Your task to perform on an android device: Go to Yahoo.com Image 0: 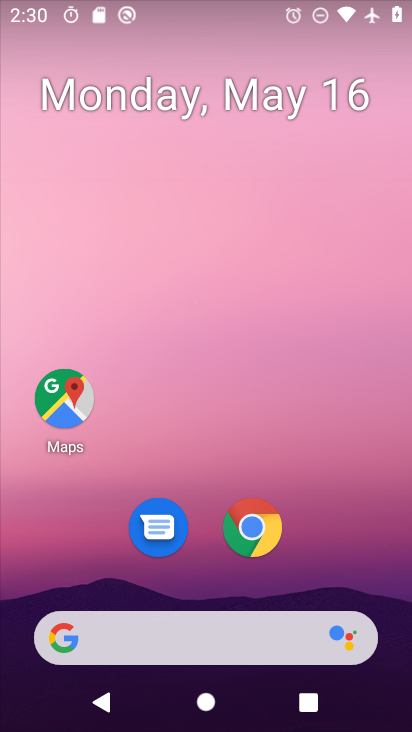
Step 0: press home button
Your task to perform on an android device: Go to Yahoo.com Image 1: 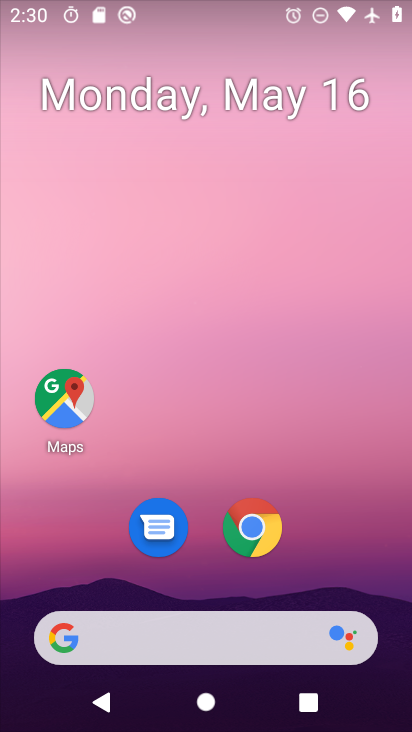
Step 1: click (256, 526)
Your task to perform on an android device: Go to Yahoo.com Image 2: 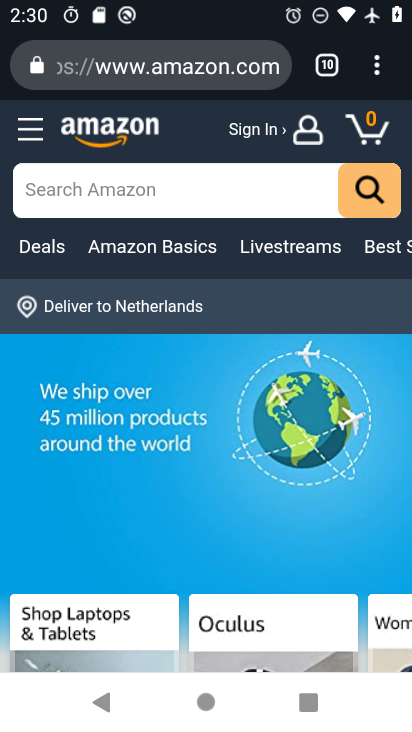
Step 2: drag from (380, 82) to (271, 147)
Your task to perform on an android device: Go to Yahoo.com Image 3: 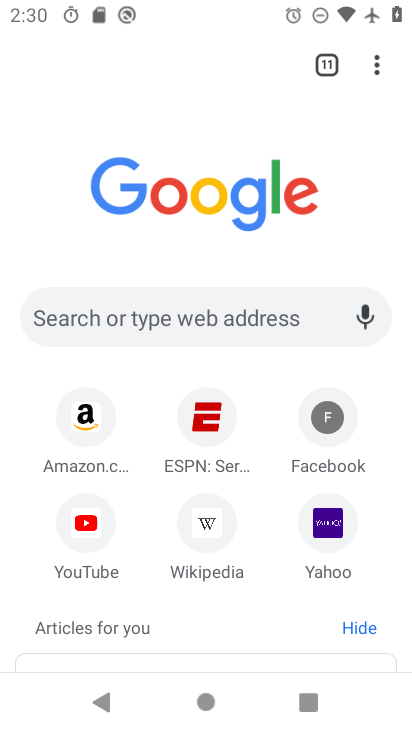
Step 3: click (330, 532)
Your task to perform on an android device: Go to Yahoo.com Image 4: 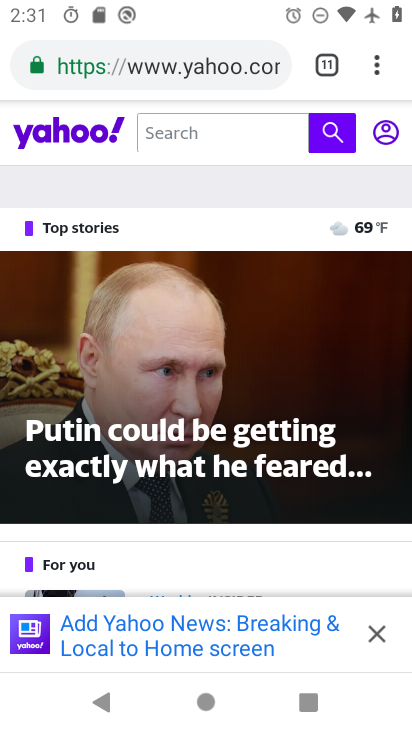
Step 4: task complete